Your task to perform on an android device: uninstall "The Home Depot" Image 0: 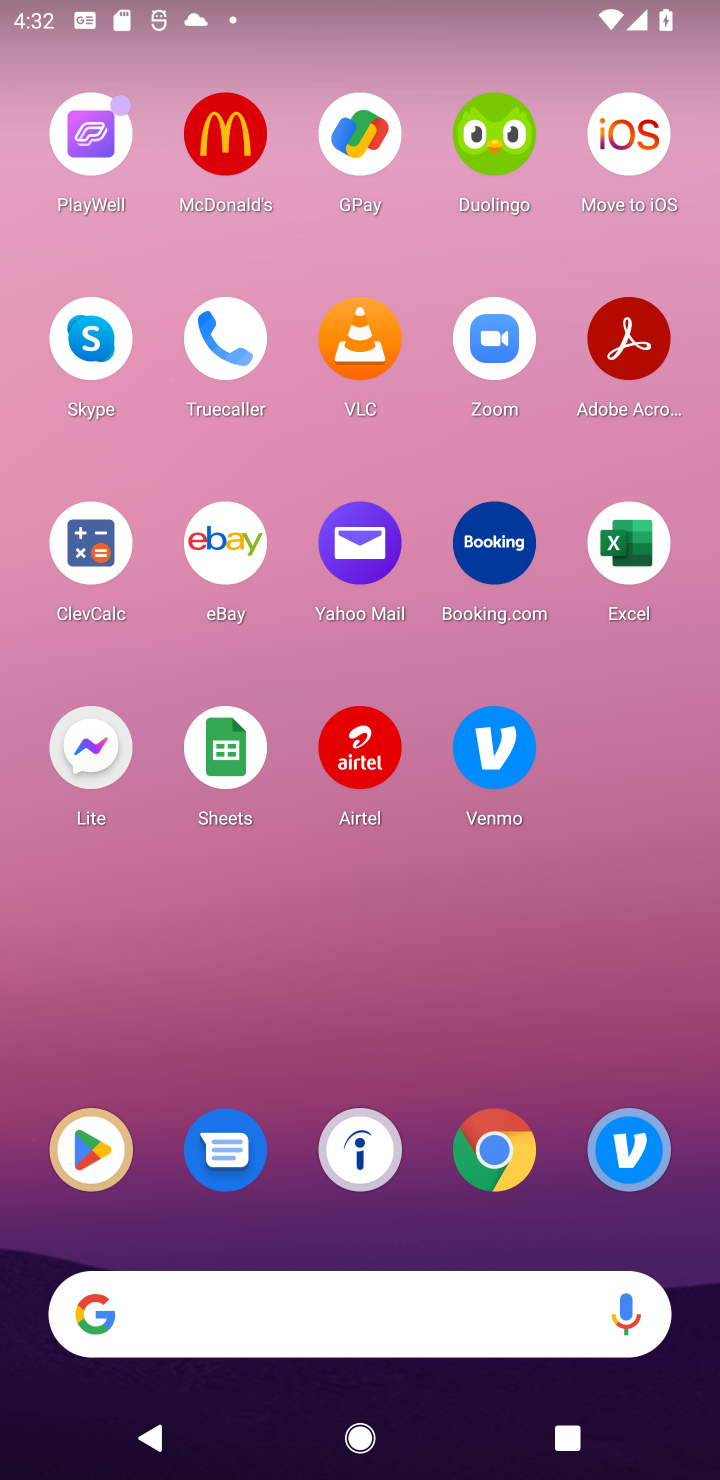
Step 0: click (395, 788)
Your task to perform on an android device: uninstall "The Home Depot" Image 1: 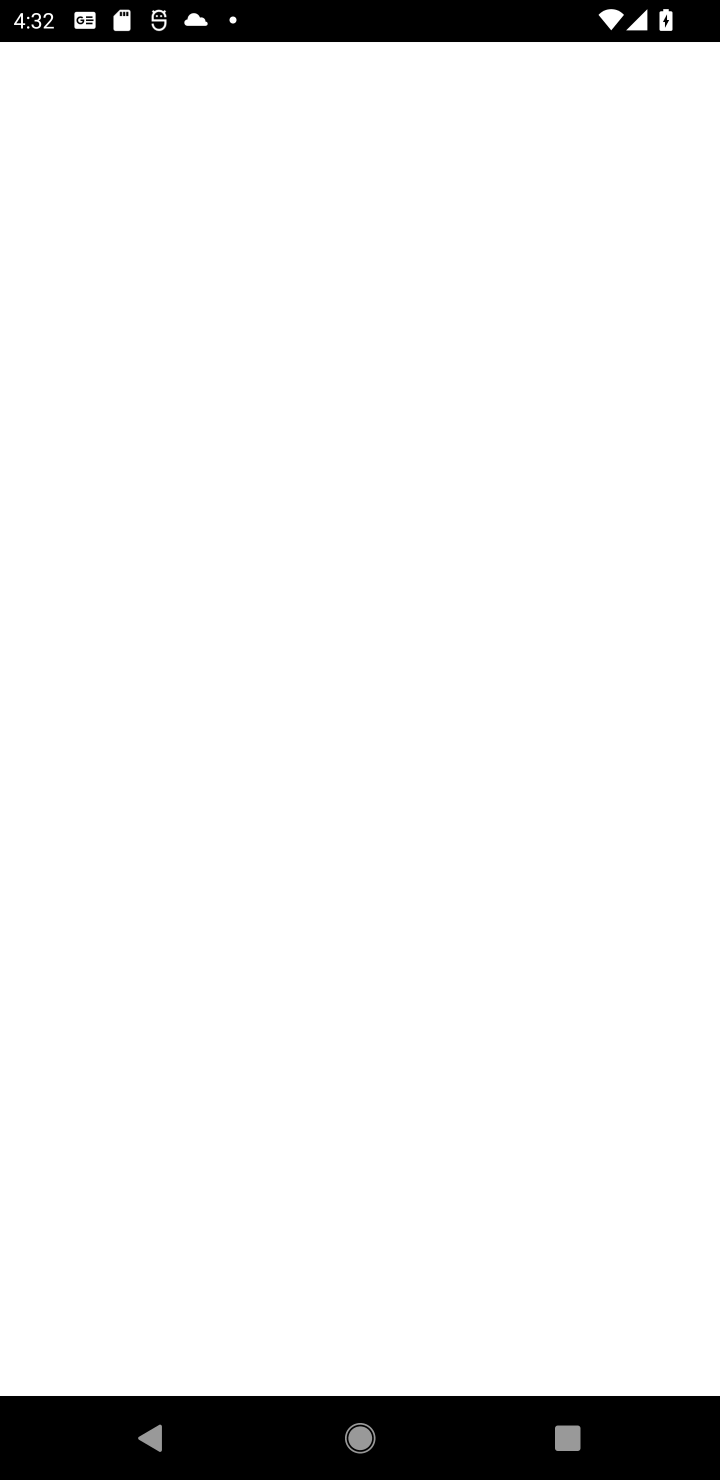
Step 1: press home button
Your task to perform on an android device: uninstall "The Home Depot" Image 2: 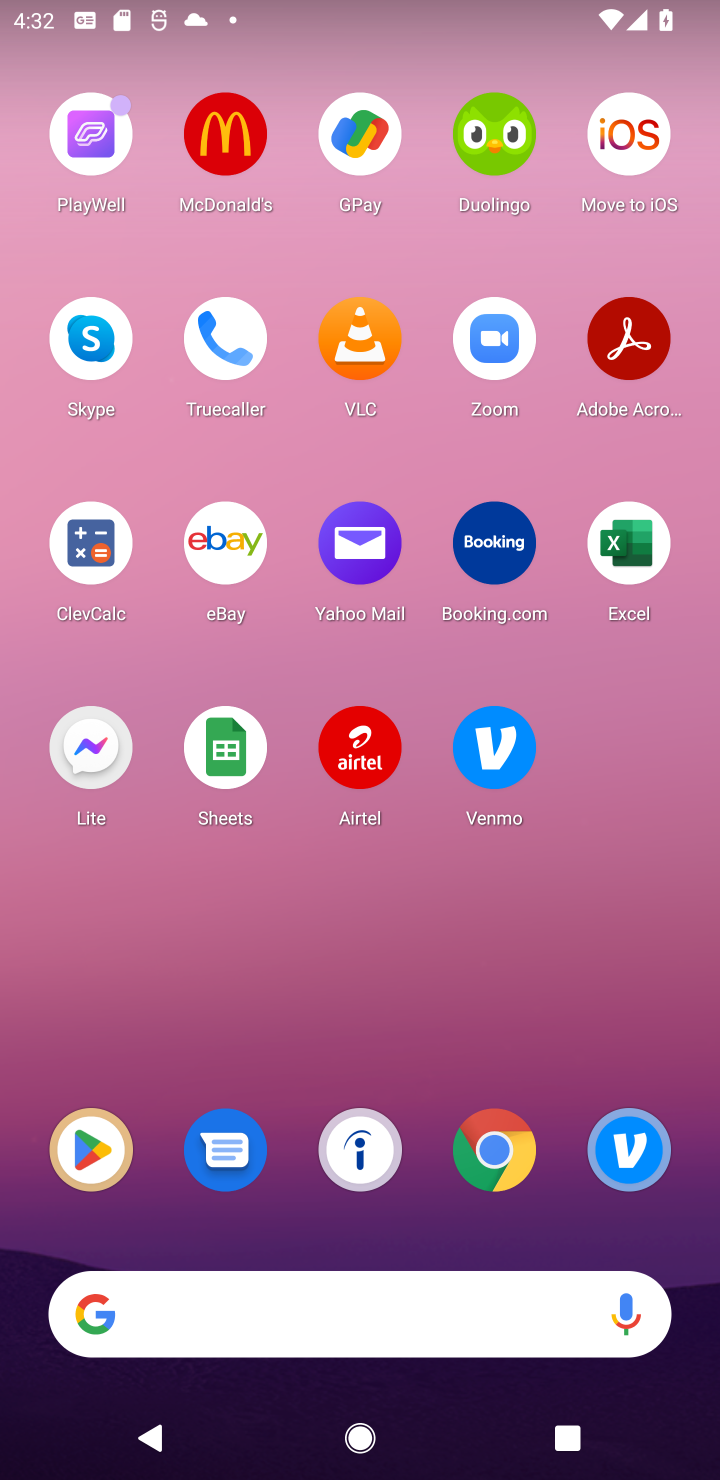
Step 2: drag from (286, 1206) to (283, 10)
Your task to perform on an android device: uninstall "The Home Depot" Image 3: 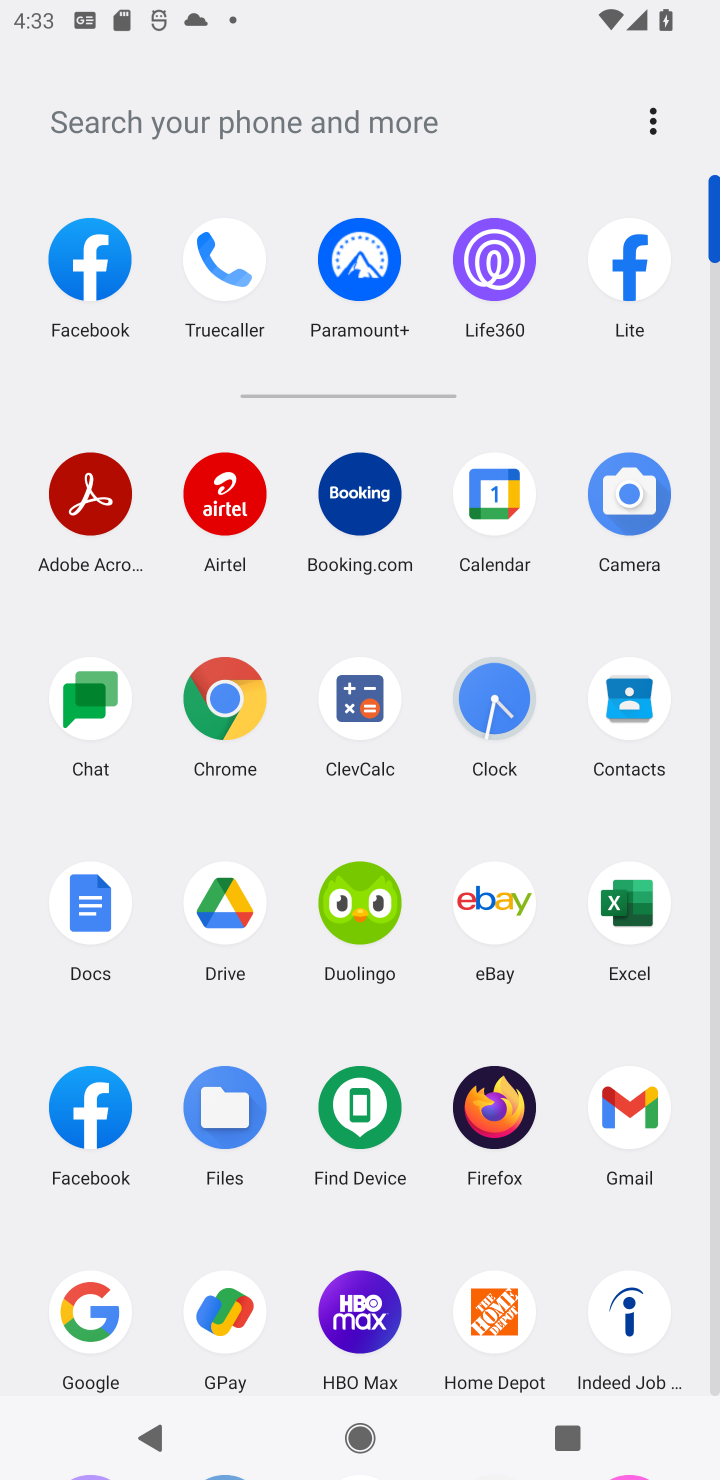
Step 3: click (477, 1285)
Your task to perform on an android device: uninstall "The Home Depot" Image 4: 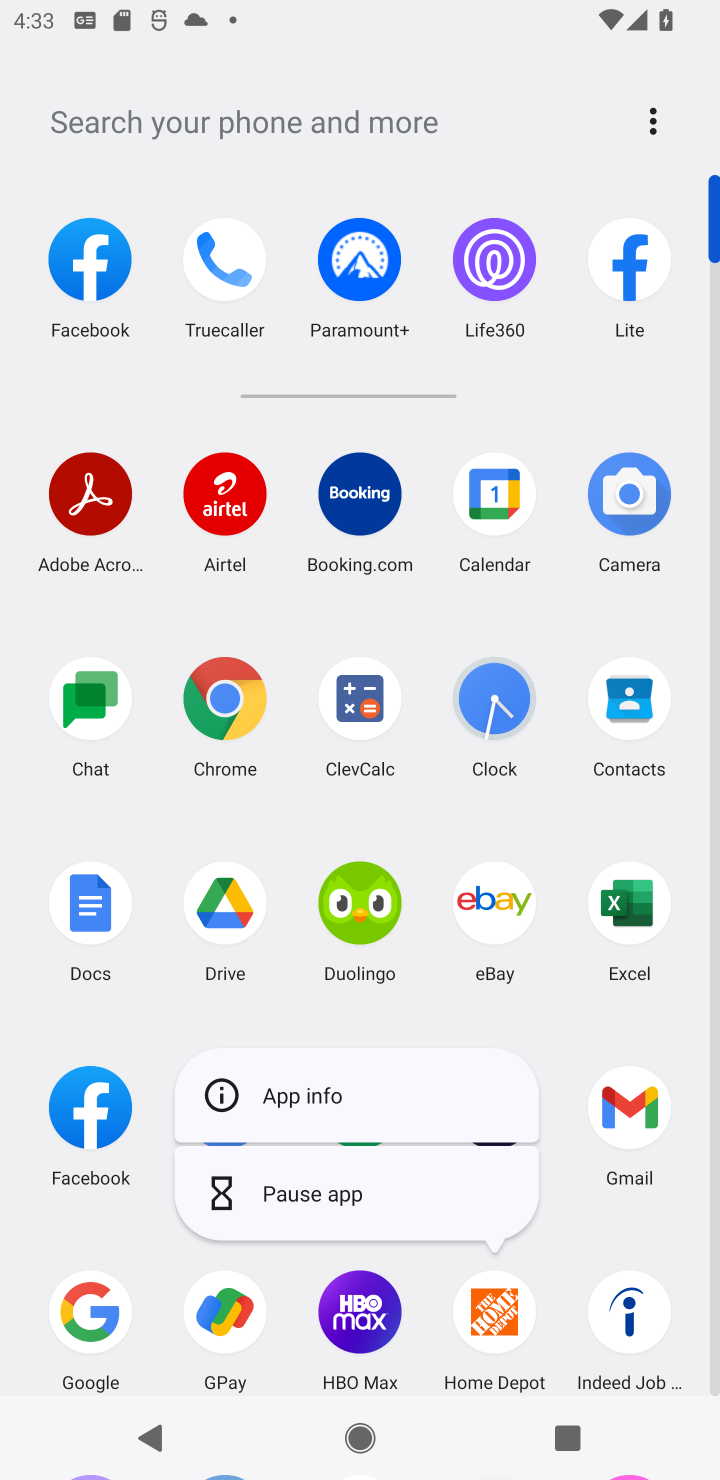
Step 4: click (304, 1097)
Your task to perform on an android device: uninstall "The Home Depot" Image 5: 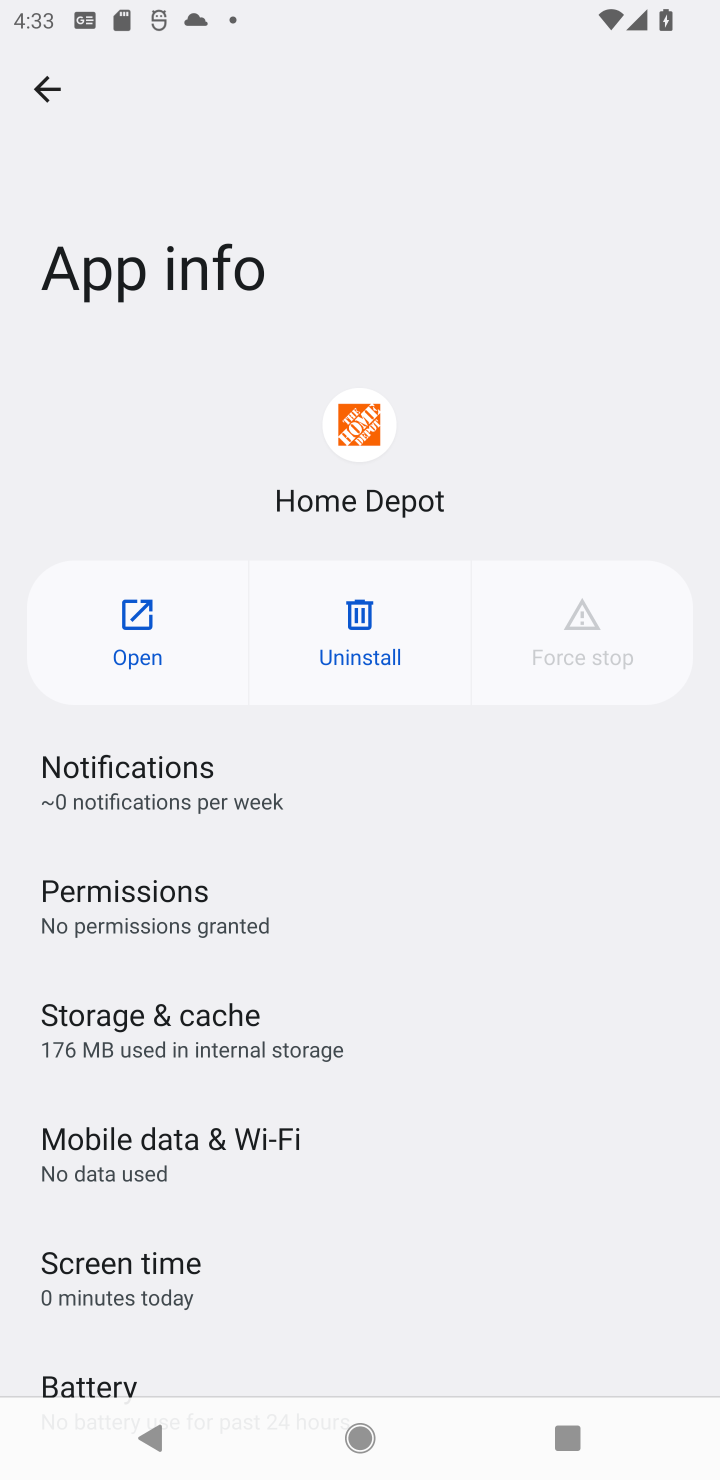
Step 5: click (372, 605)
Your task to perform on an android device: uninstall "The Home Depot" Image 6: 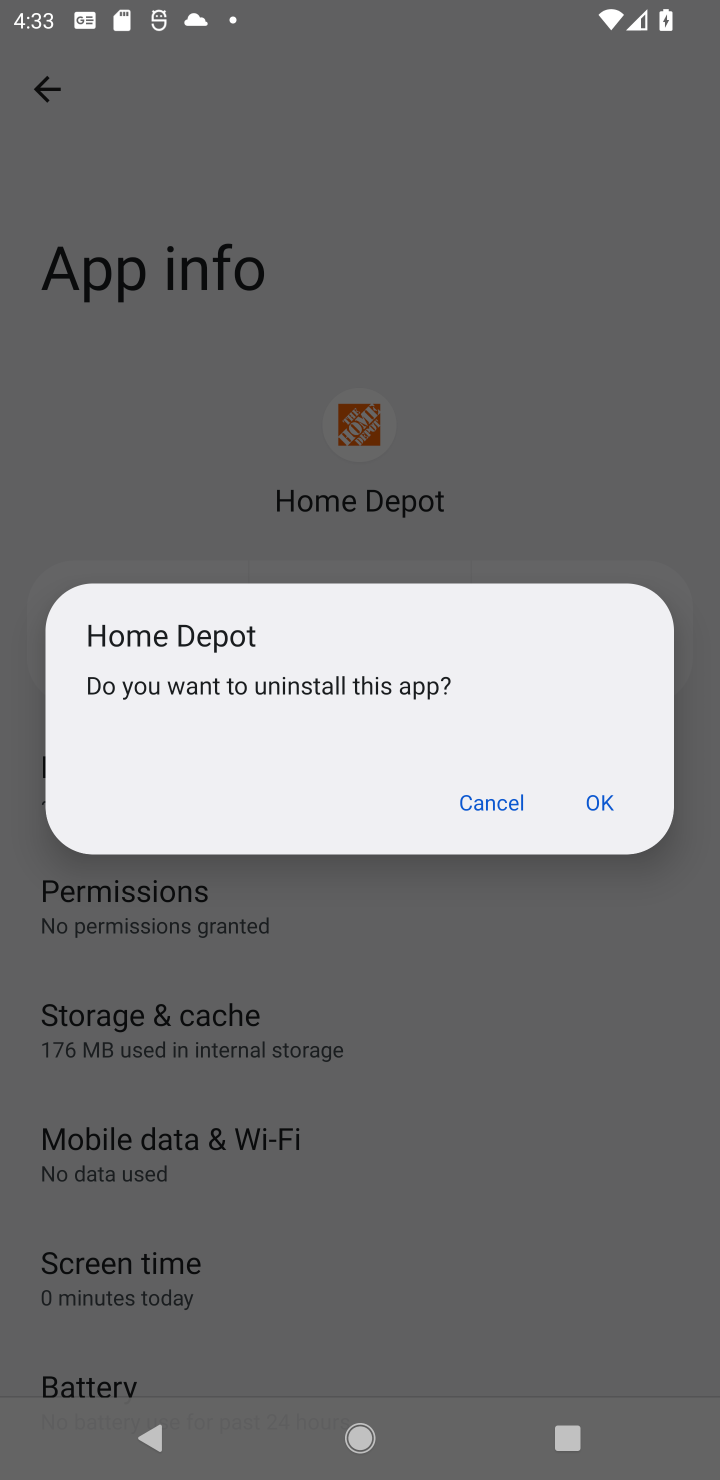
Step 6: click (615, 818)
Your task to perform on an android device: uninstall "The Home Depot" Image 7: 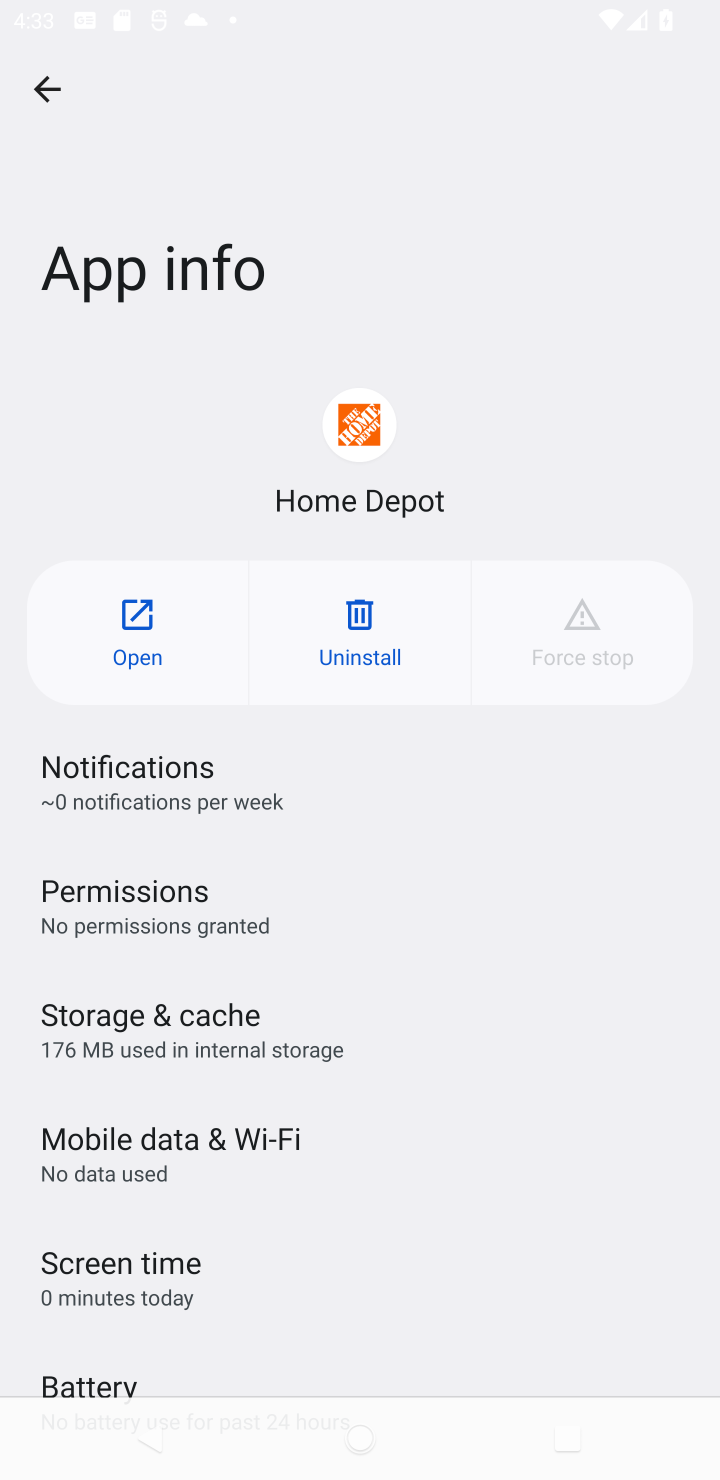
Step 7: task complete